Your task to perform on an android device: Play the last video I watched on Youtube Image 0: 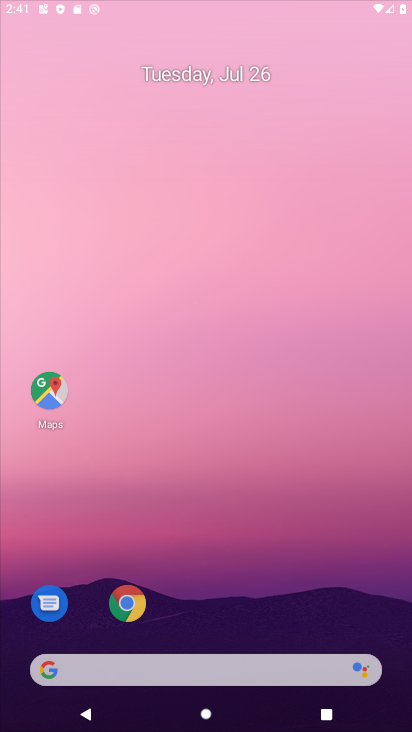
Step 0: click (238, 296)
Your task to perform on an android device: Play the last video I watched on Youtube Image 1: 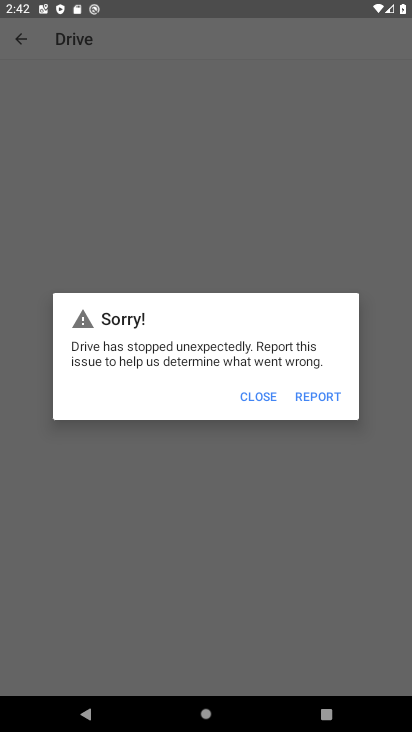
Step 1: task complete